Your task to perform on an android device: toggle javascript in the chrome app Image 0: 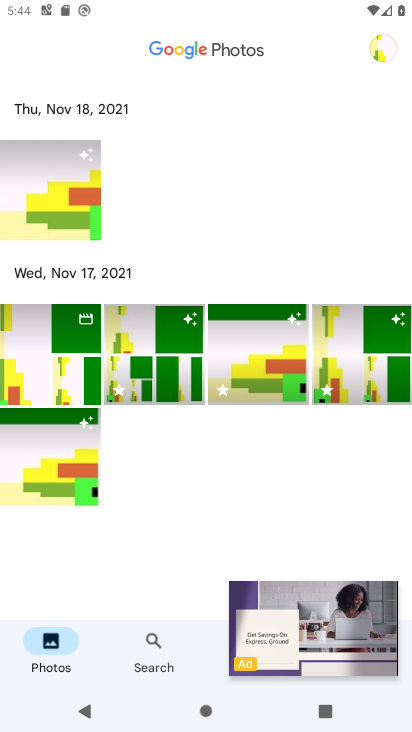
Step 0: press home button
Your task to perform on an android device: toggle javascript in the chrome app Image 1: 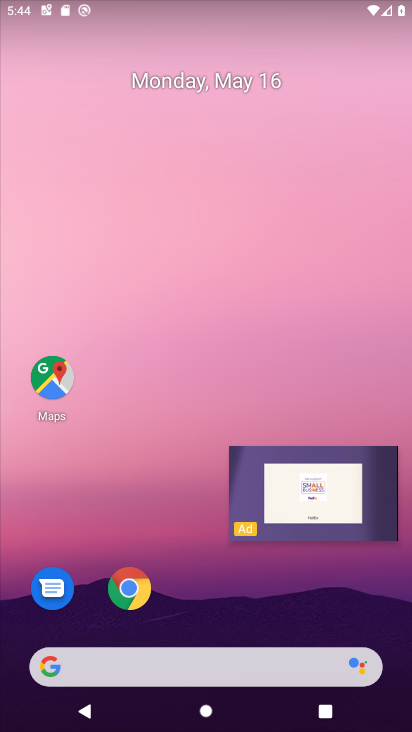
Step 1: click (128, 571)
Your task to perform on an android device: toggle javascript in the chrome app Image 2: 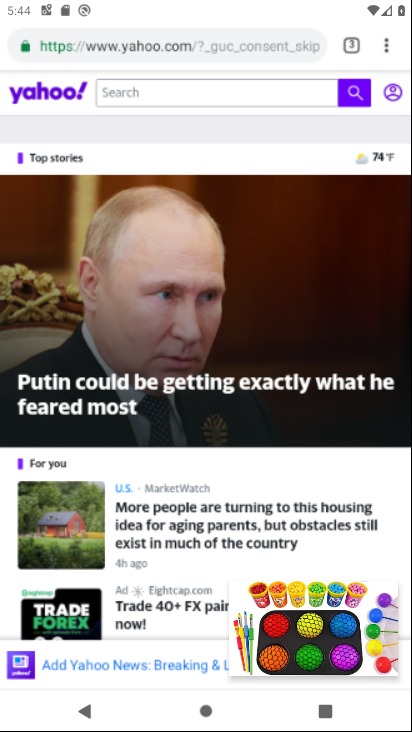
Step 2: click (384, 42)
Your task to perform on an android device: toggle javascript in the chrome app Image 3: 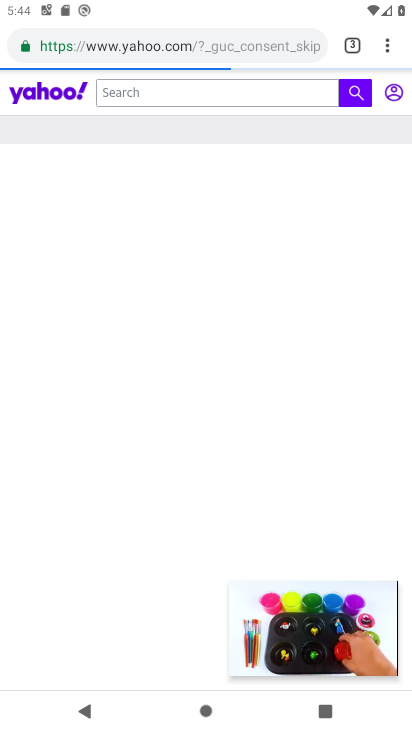
Step 3: click (393, 50)
Your task to perform on an android device: toggle javascript in the chrome app Image 4: 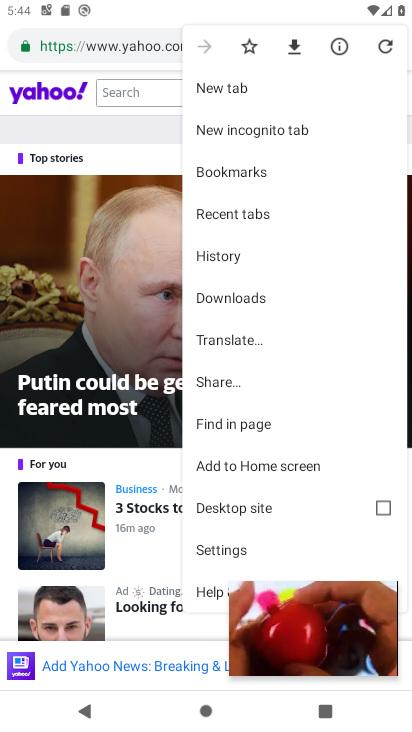
Step 4: click (210, 560)
Your task to perform on an android device: toggle javascript in the chrome app Image 5: 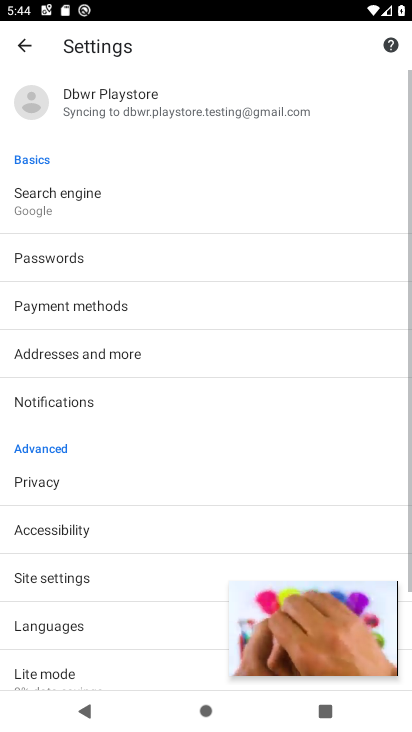
Step 5: click (94, 591)
Your task to perform on an android device: toggle javascript in the chrome app Image 6: 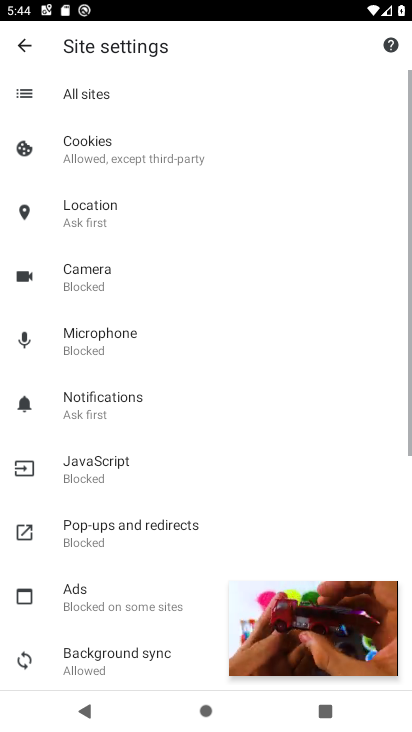
Step 6: click (133, 478)
Your task to perform on an android device: toggle javascript in the chrome app Image 7: 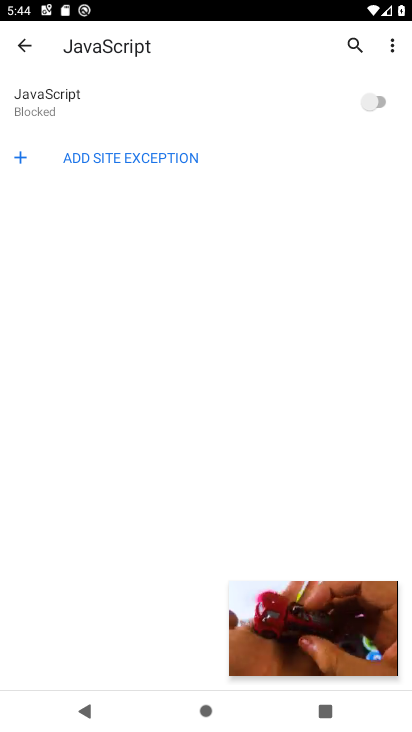
Step 7: click (360, 96)
Your task to perform on an android device: toggle javascript in the chrome app Image 8: 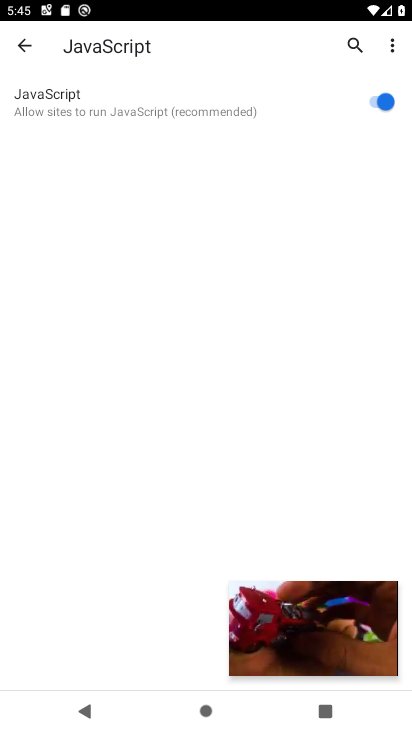
Step 8: task complete